Your task to perform on an android device: turn off airplane mode Image 0: 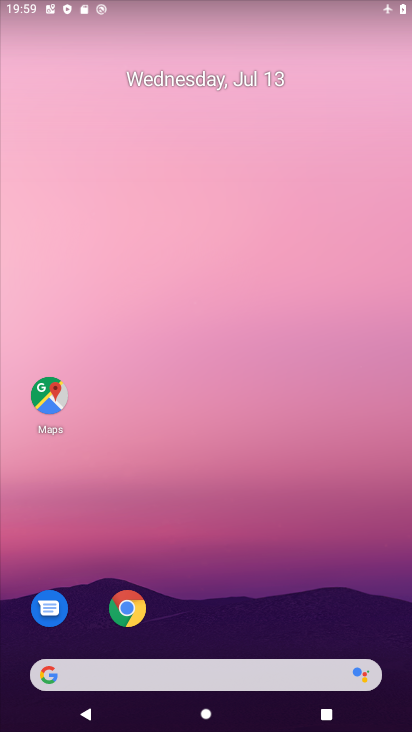
Step 0: drag from (206, 624) to (156, 86)
Your task to perform on an android device: turn off airplane mode Image 1: 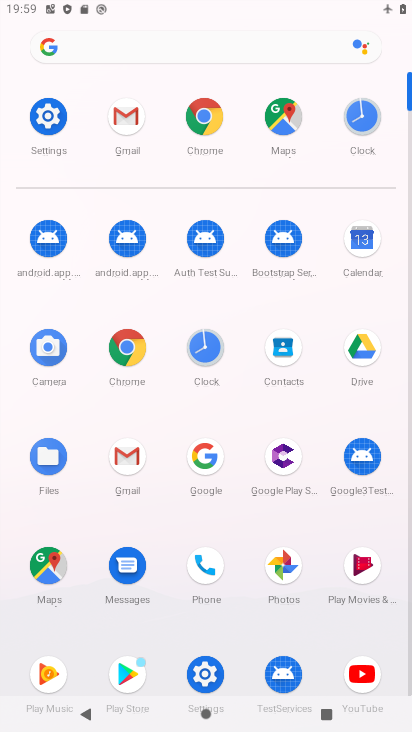
Step 1: click (54, 113)
Your task to perform on an android device: turn off airplane mode Image 2: 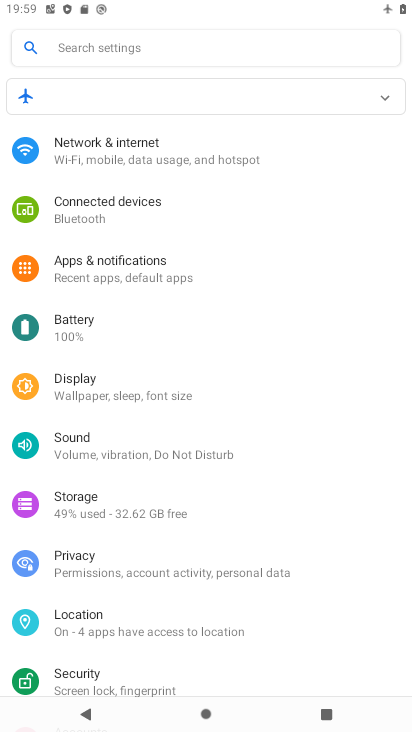
Step 2: click (115, 160)
Your task to perform on an android device: turn off airplane mode Image 3: 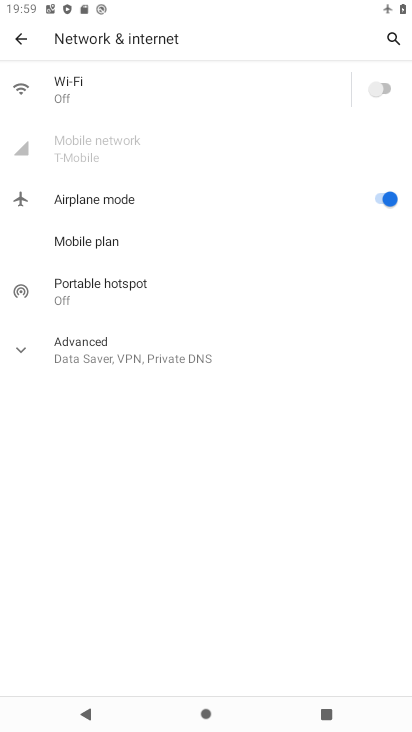
Step 3: click (369, 201)
Your task to perform on an android device: turn off airplane mode Image 4: 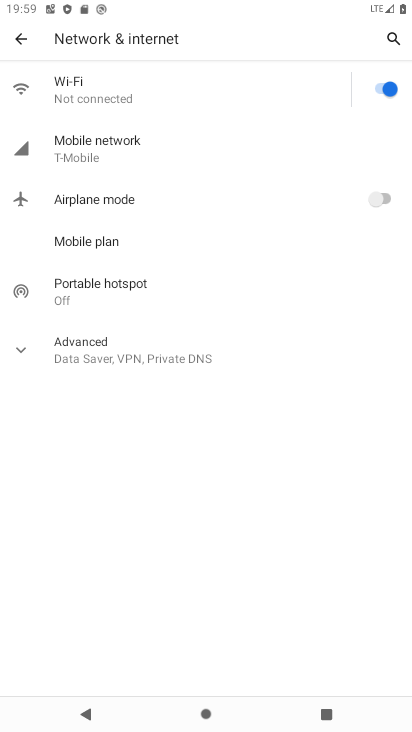
Step 4: task complete